Your task to perform on an android device: see tabs open on other devices in the chrome app Image 0: 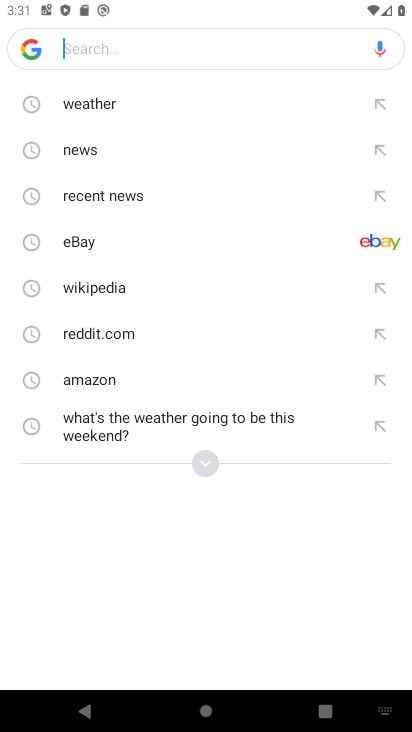
Step 0: press home button
Your task to perform on an android device: see tabs open on other devices in the chrome app Image 1: 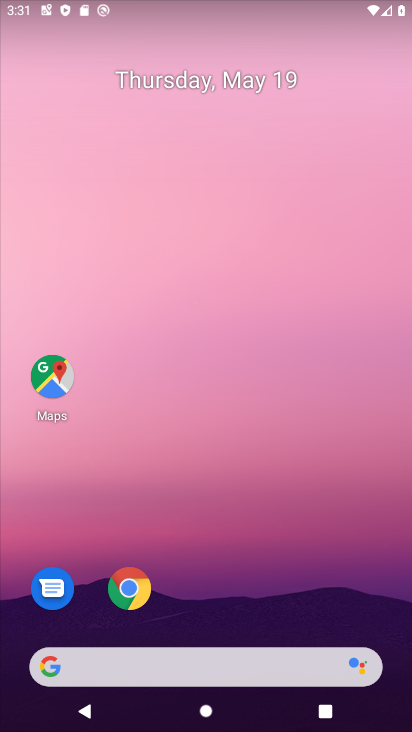
Step 1: click (131, 599)
Your task to perform on an android device: see tabs open on other devices in the chrome app Image 2: 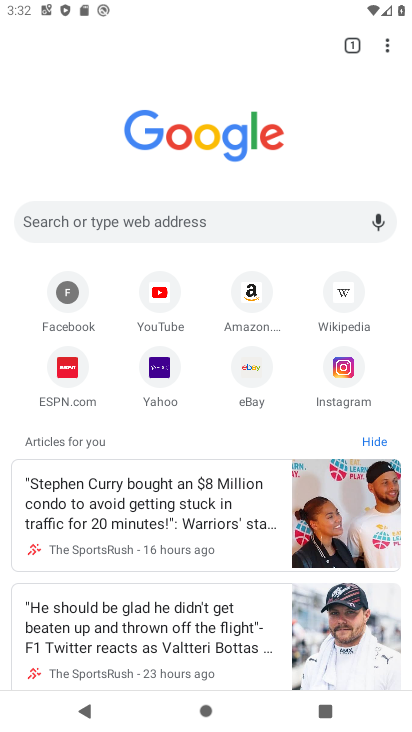
Step 2: click (402, 40)
Your task to perform on an android device: see tabs open on other devices in the chrome app Image 3: 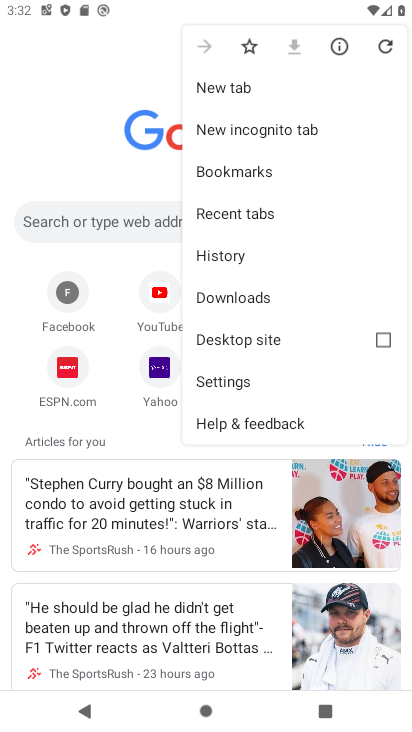
Step 3: click (235, 210)
Your task to perform on an android device: see tabs open on other devices in the chrome app Image 4: 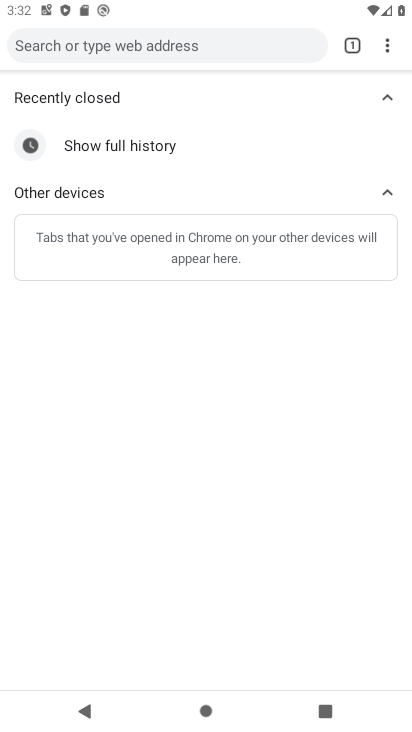
Step 4: task complete